Your task to perform on an android device: turn off location Image 0: 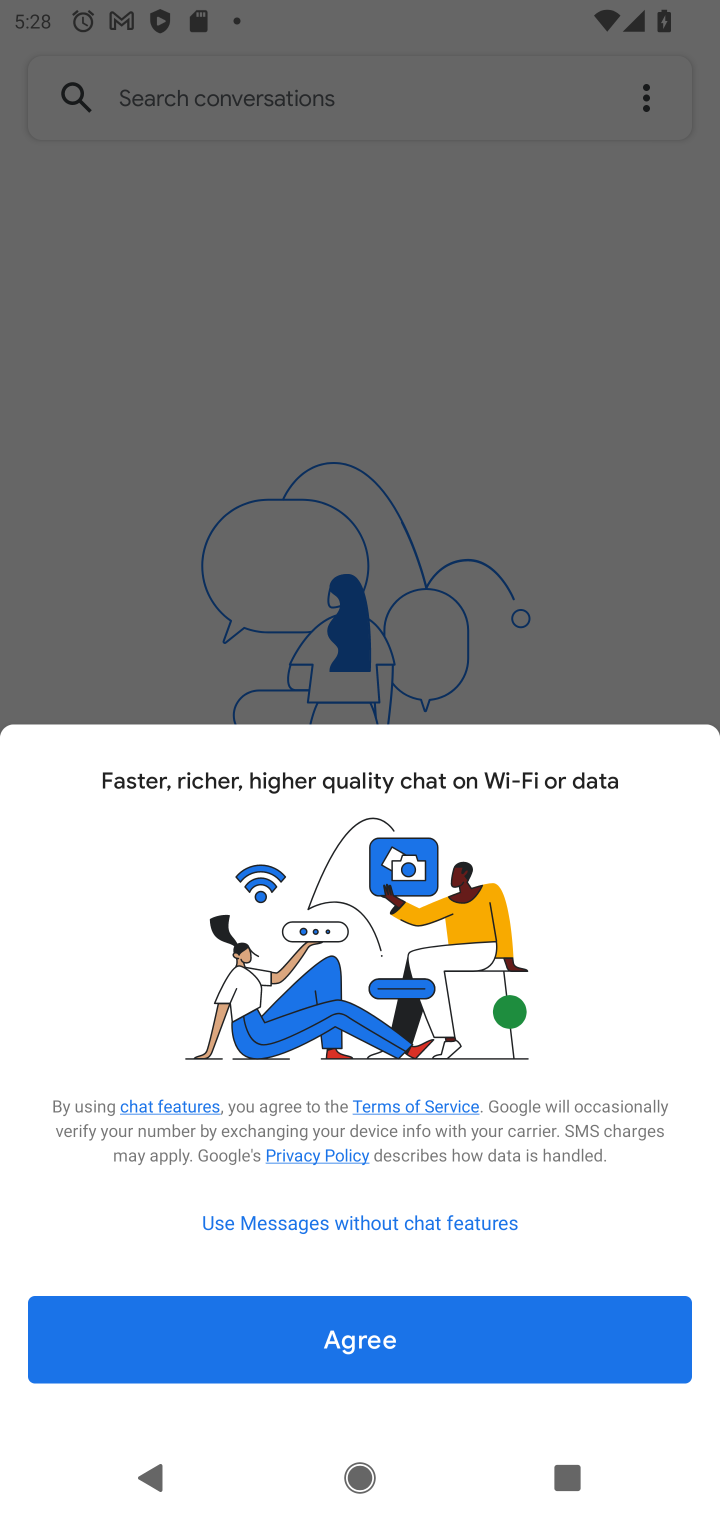
Step 0: press home button
Your task to perform on an android device: turn off location Image 1: 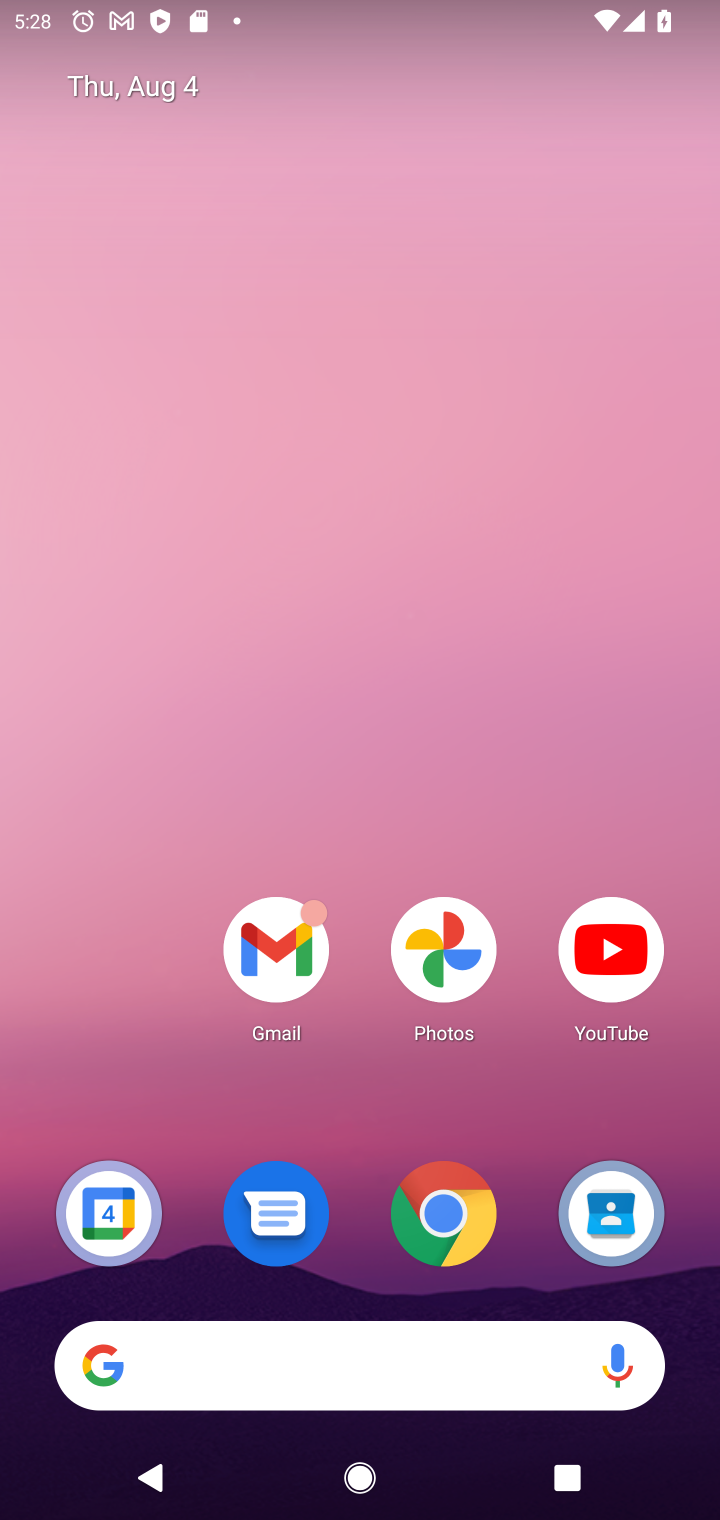
Step 1: drag from (197, 1063) to (212, 9)
Your task to perform on an android device: turn off location Image 2: 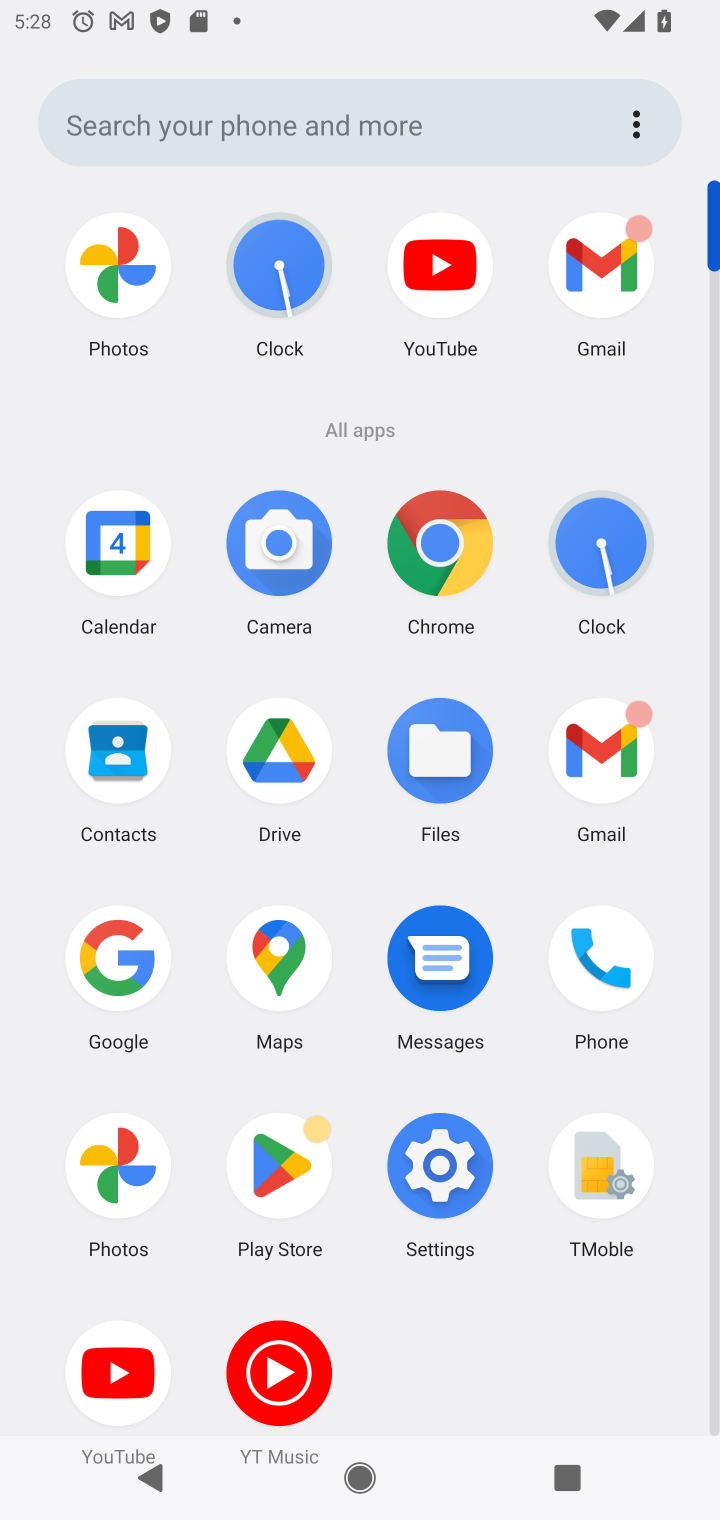
Step 2: click (443, 1182)
Your task to perform on an android device: turn off location Image 3: 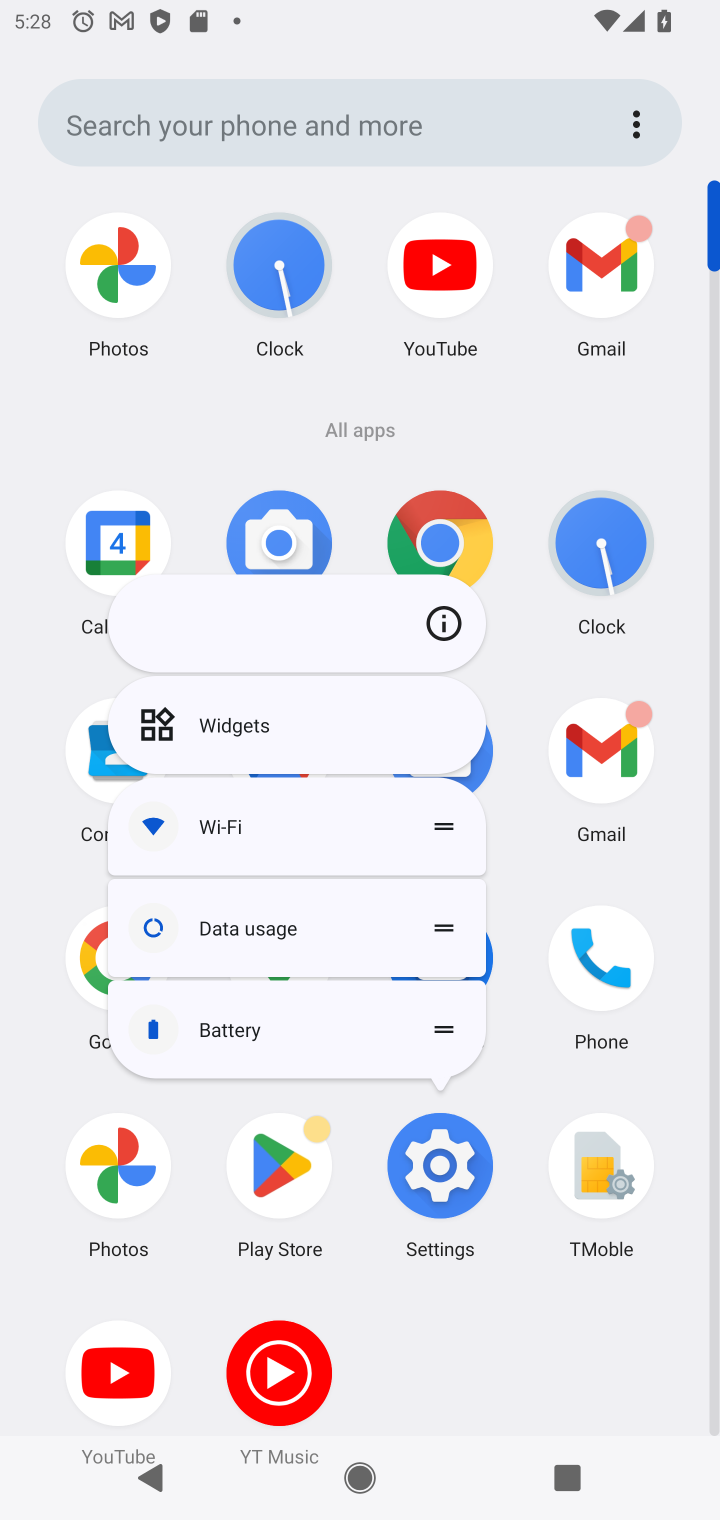
Step 3: click (443, 1182)
Your task to perform on an android device: turn off location Image 4: 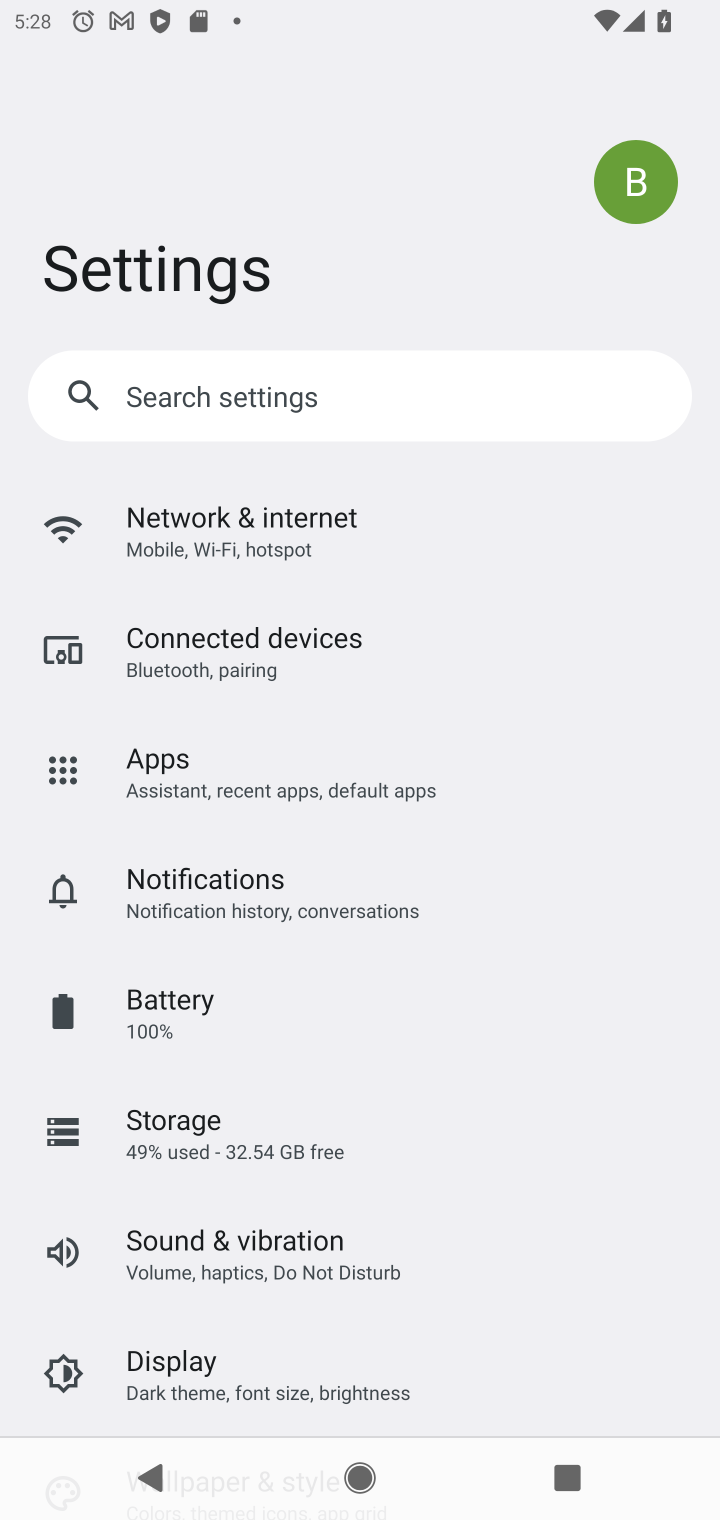
Step 4: drag from (461, 1208) to (461, 358)
Your task to perform on an android device: turn off location Image 5: 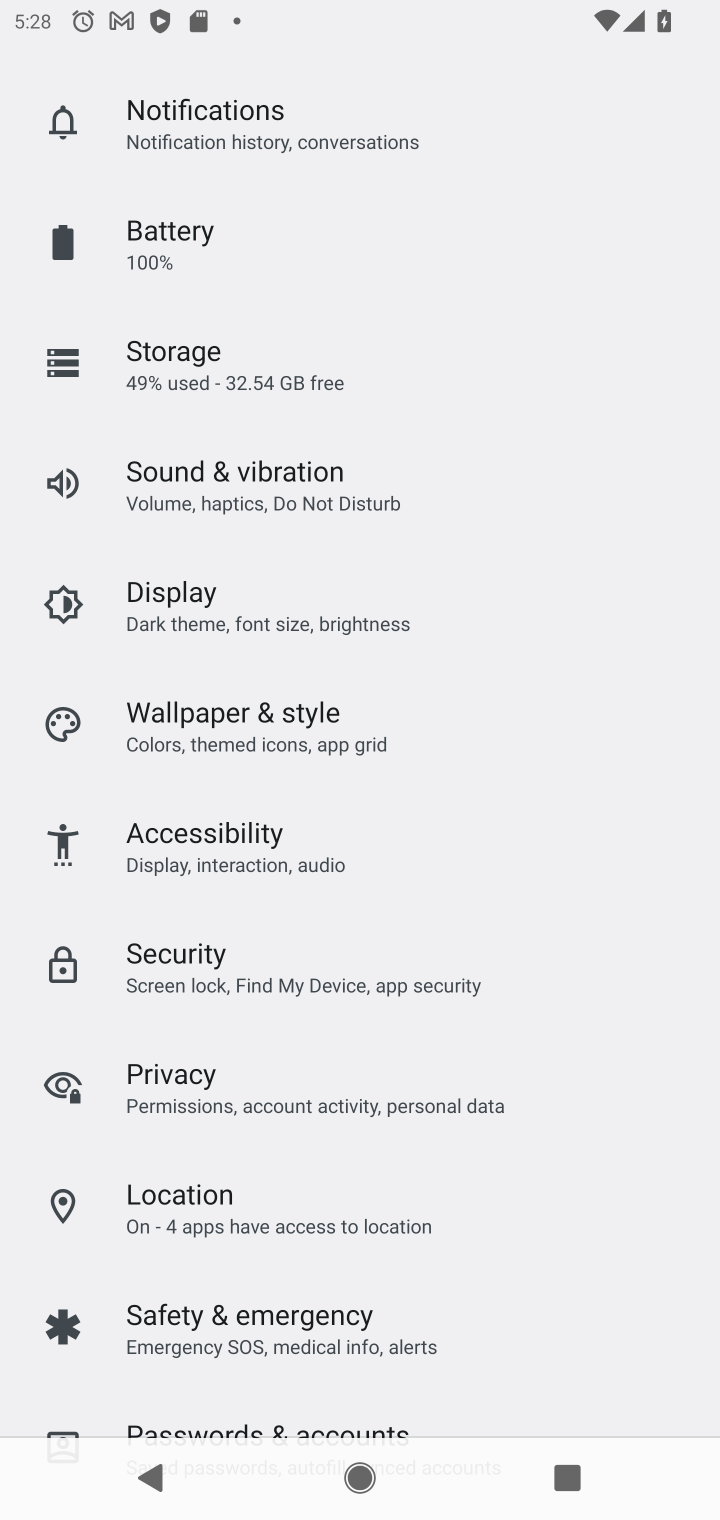
Step 5: click (194, 1224)
Your task to perform on an android device: turn off location Image 6: 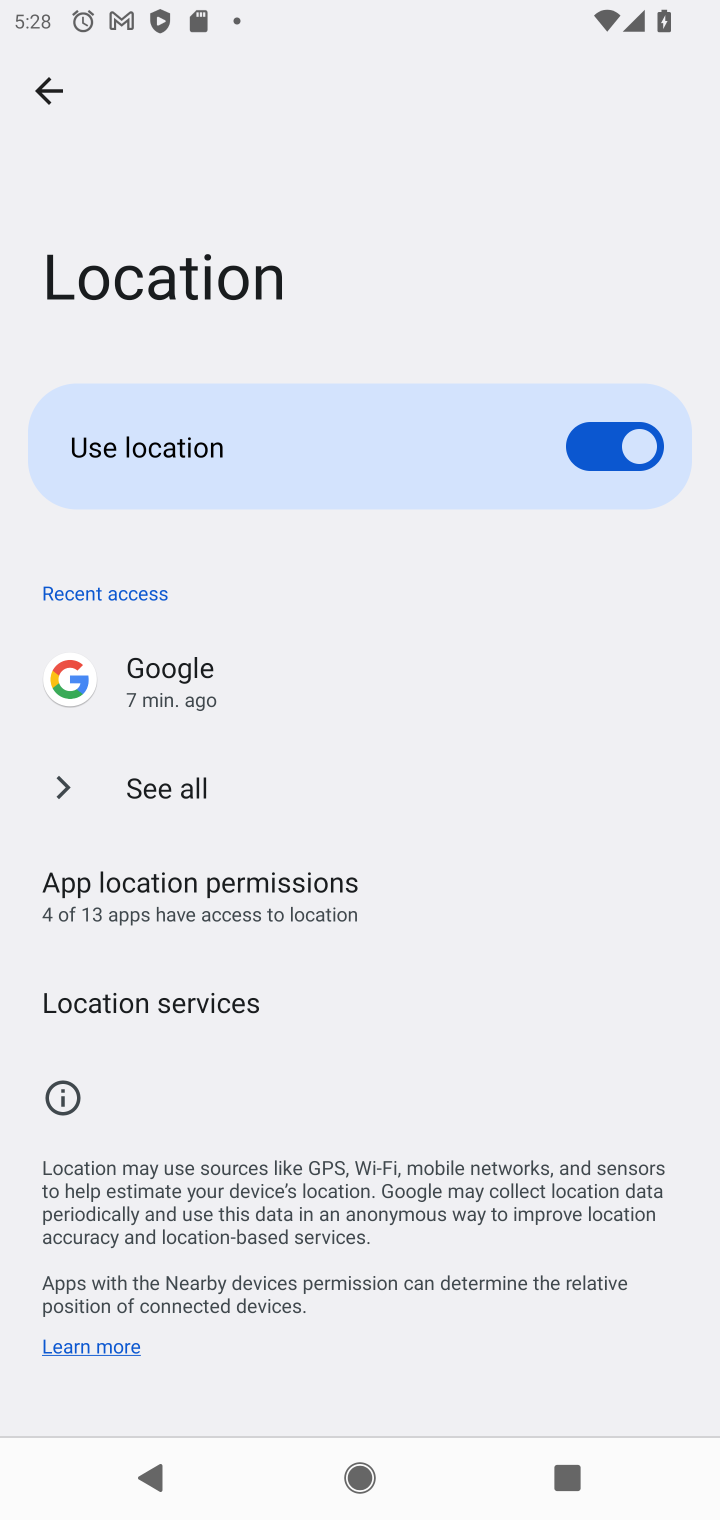
Step 6: click (654, 451)
Your task to perform on an android device: turn off location Image 7: 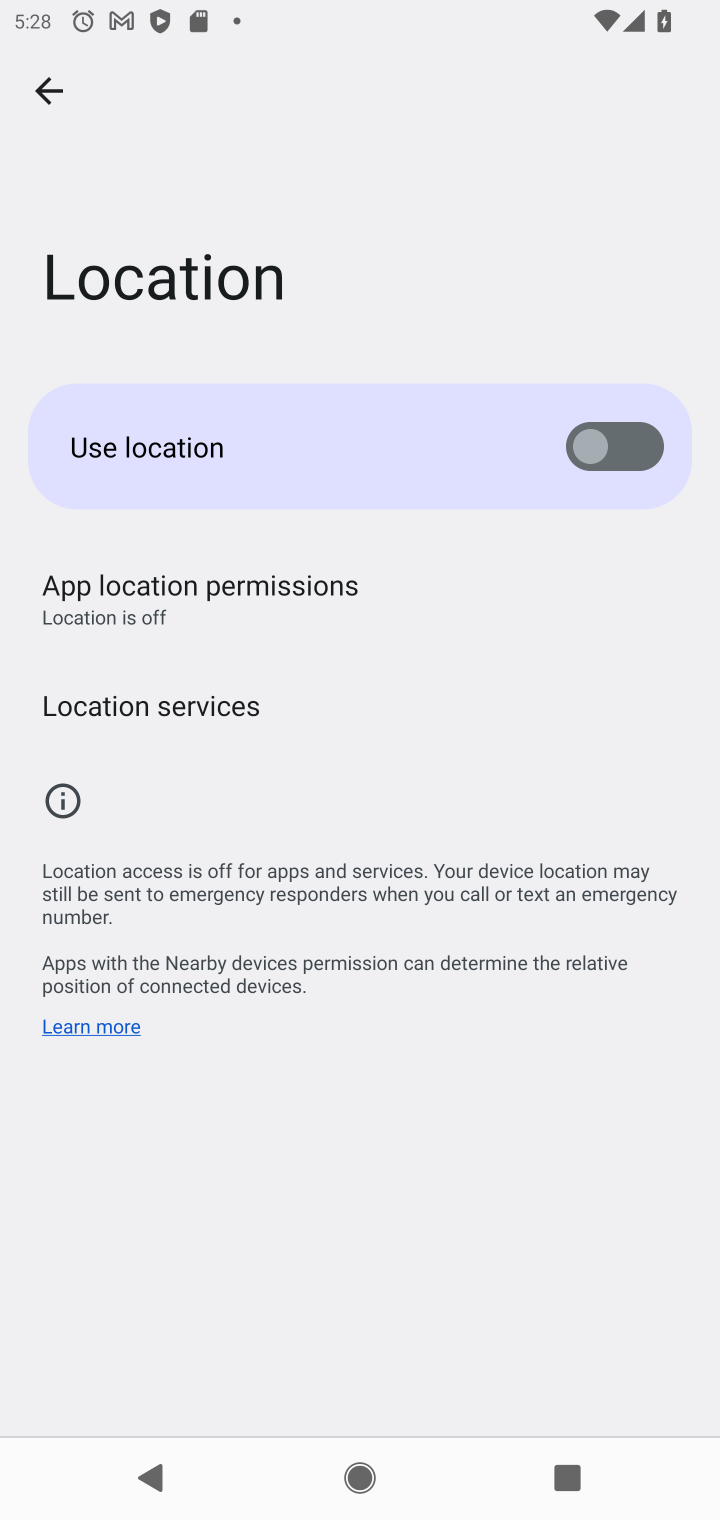
Step 7: task complete